Your task to perform on an android device: Open Google Maps and go to "Timeline" Image 0: 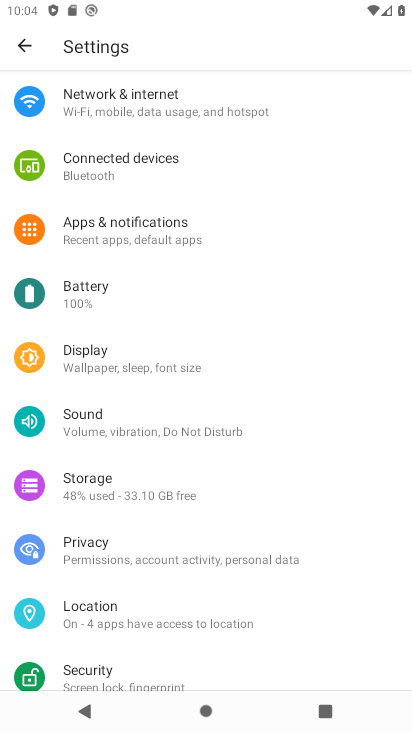
Step 0: press home button
Your task to perform on an android device: Open Google Maps and go to "Timeline" Image 1: 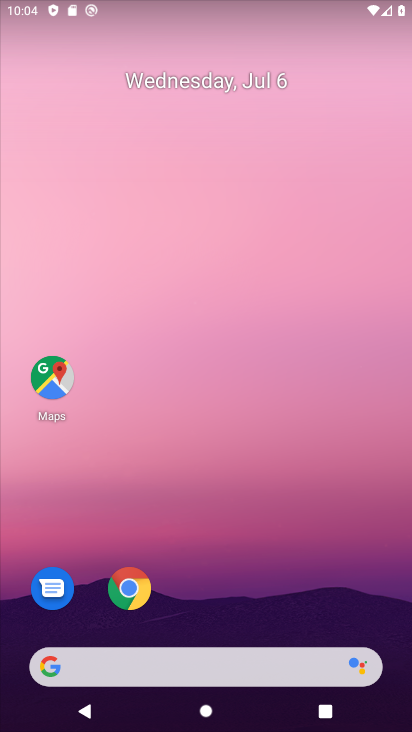
Step 1: click (56, 378)
Your task to perform on an android device: Open Google Maps and go to "Timeline" Image 2: 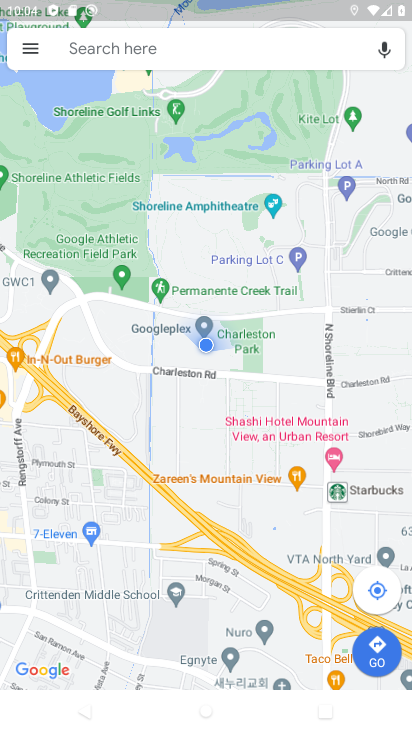
Step 2: click (43, 49)
Your task to perform on an android device: Open Google Maps and go to "Timeline" Image 3: 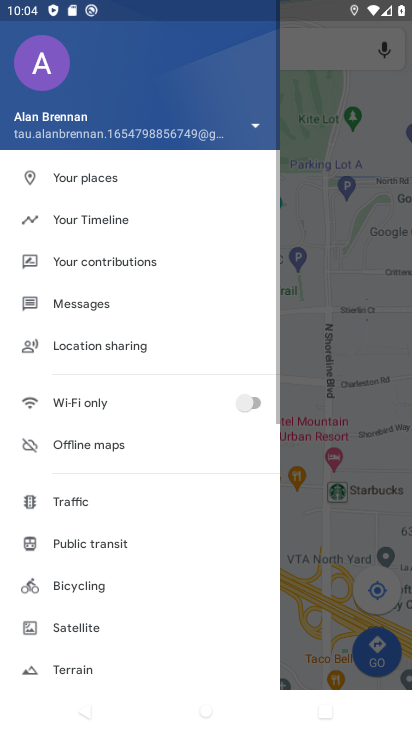
Step 3: click (119, 221)
Your task to perform on an android device: Open Google Maps and go to "Timeline" Image 4: 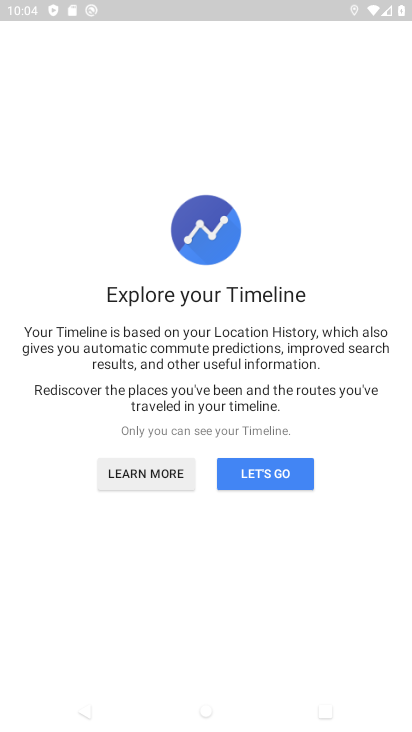
Step 4: click (259, 476)
Your task to perform on an android device: Open Google Maps and go to "Timeline" Image 5: 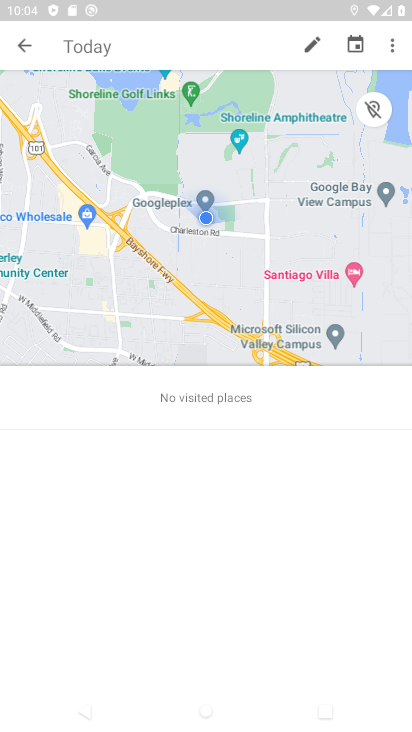
Step 5: task complete